Your task to perform on an android device: turn off location history Image 0: 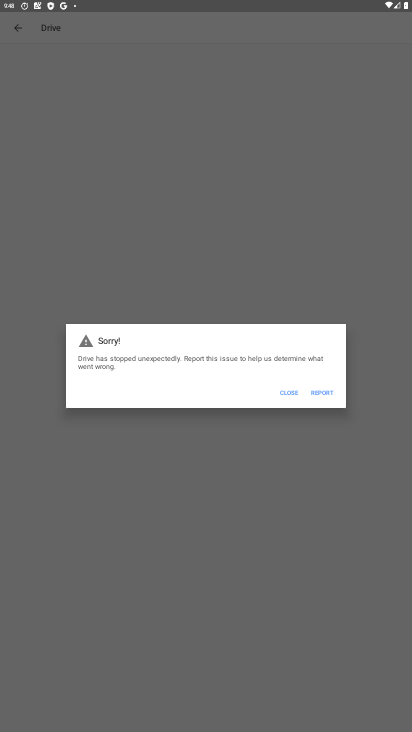
Step 0: press home button
Your task to perform on an android device: turn off location history Image 1: 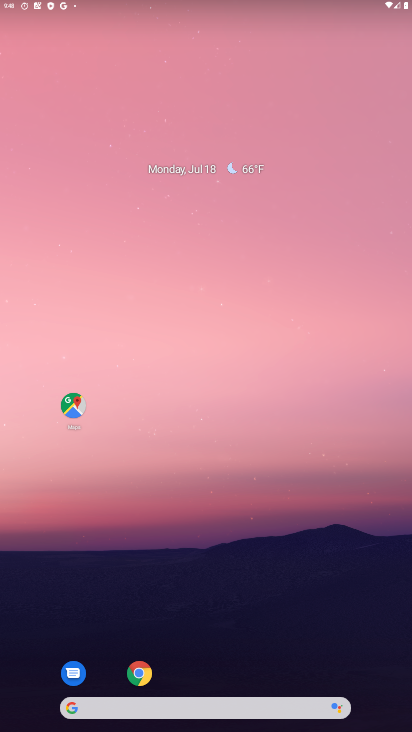
Step 1: drag from (236, 662) to (292, 135)
Your task to perform on an android device: turn off location history Image 2: 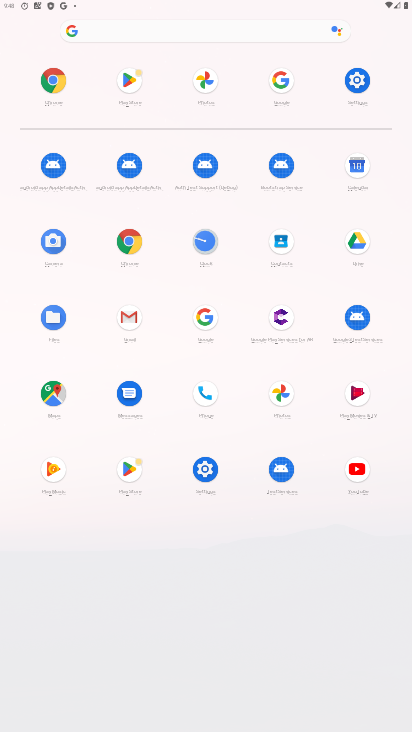
Step 2: click (214, 465)
Your task to perform on an android device: turn off location history Image 3: 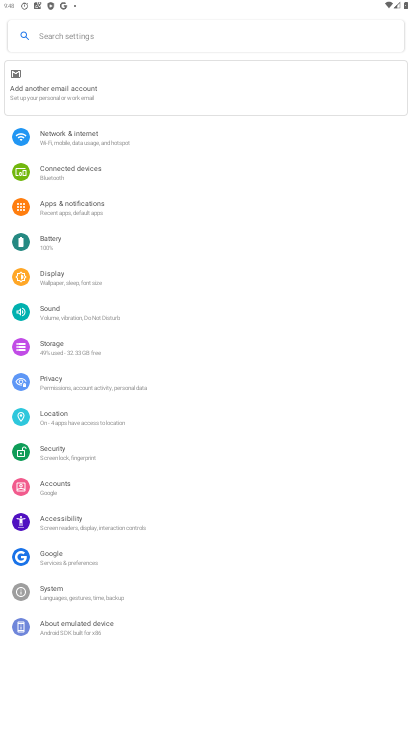
Step 3: click (57, 421)
Your task to perform on an android device: turn off location history Image 4: 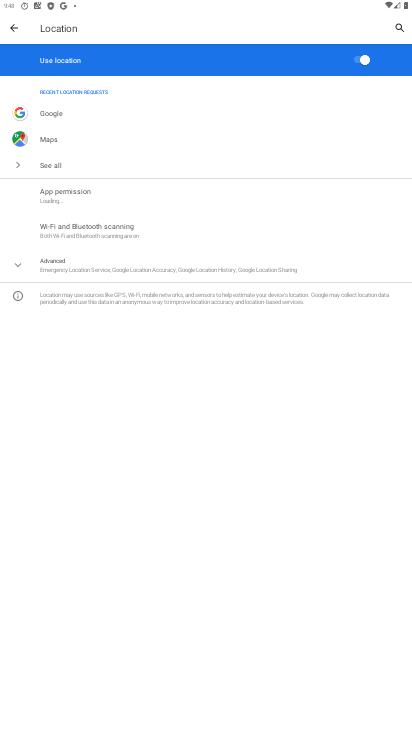
Step 4: click (50, 263)
Your task to perform on an android device: turn off location history Image 5: 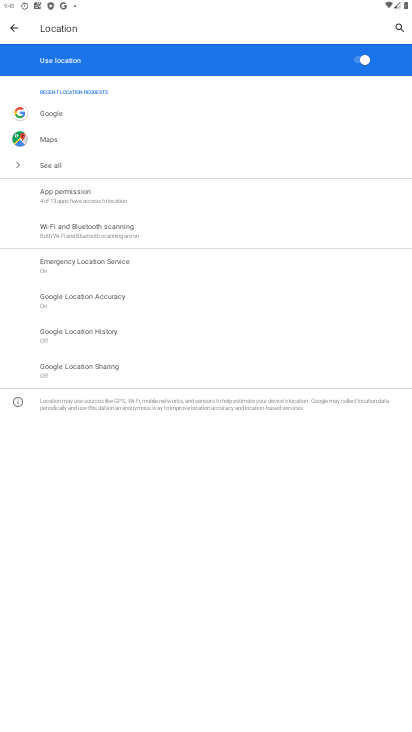
Step 5: click (95, 335)
Your task to perform on an android device: turn off location history Image 6: 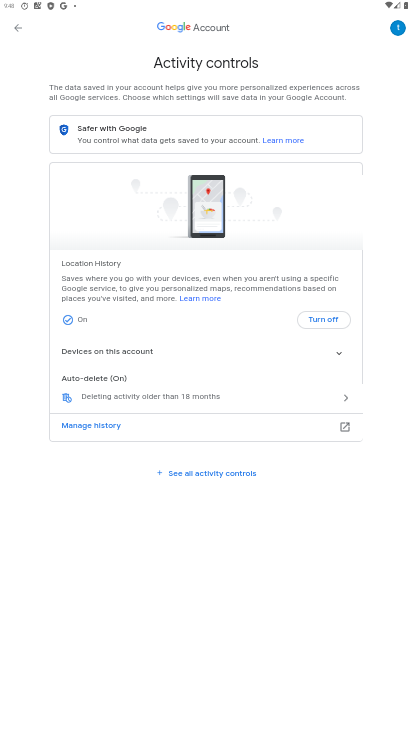
Step 6: click (309, 316)
Your task to perform on an android device: turn off location history Image 7: 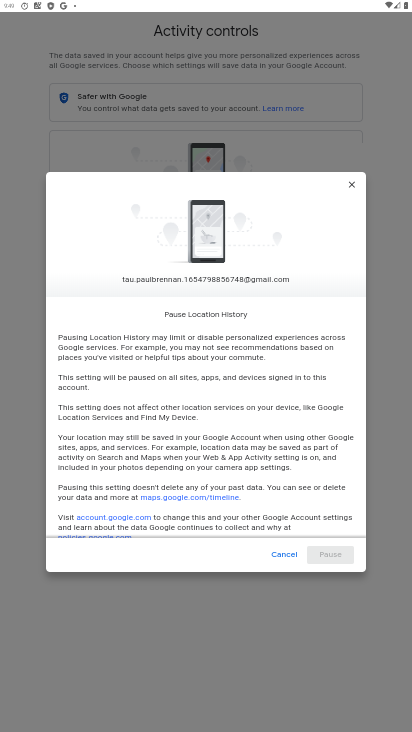
Step 7: drag from (314, 508) to (307, 172)
Your task to perform on an android device: turn off location history Image 8: 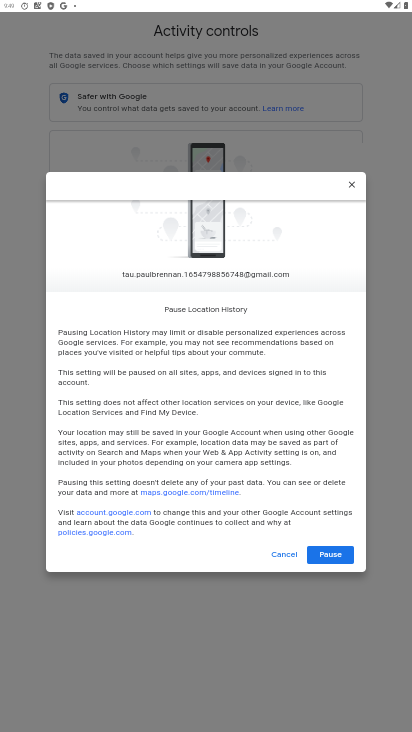
Step 8: click (331, 563)
Your task to perform on an android device: turn off location history Image 9: 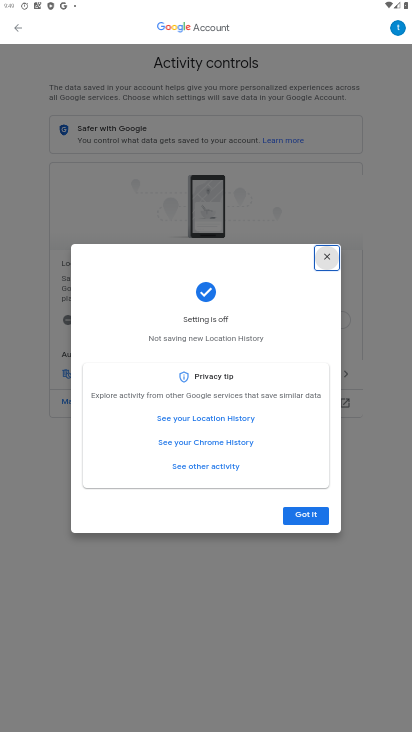
Step 9: task complete